Your task to perform on an android device: toggle notifications settings in the gmail app Image 0: 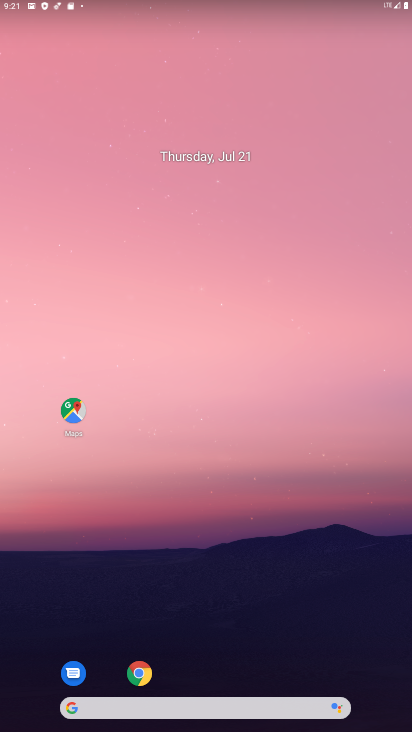
Step 0: drag from (199, 656) to (325, 364)
Your task to perform on an android device: toggle notifications settings in the gmail app Image 1: 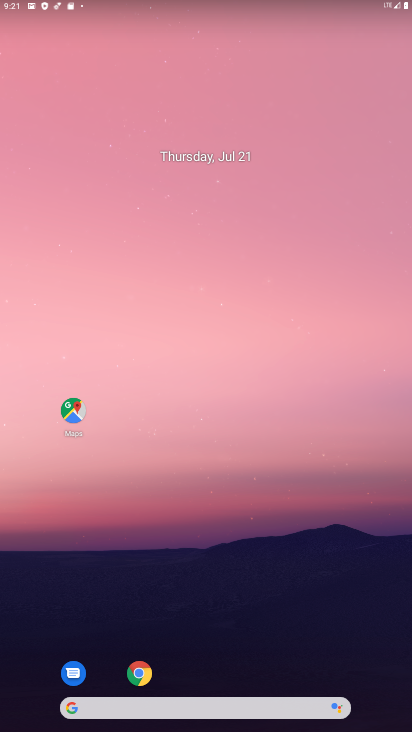
Step 1: drag from (182, 645) to (273, 101)
Your task to perform on an android device: toggle notifications settings in the gmail app Image 2: 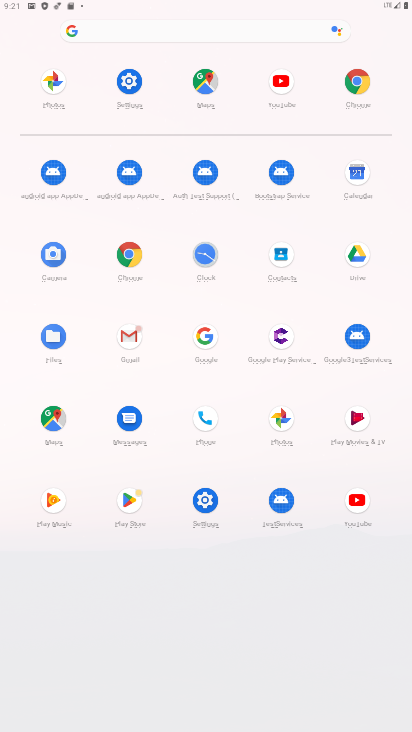
Step 2: click (129, 337)
Your task to perform on an android device: toggle notifications settings in the gmail app Image 3: 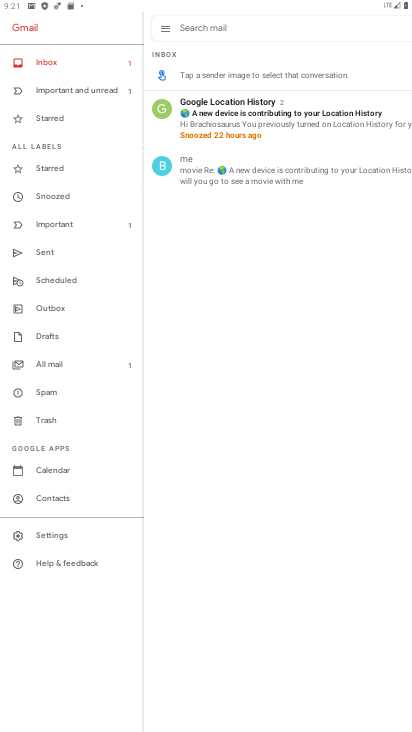
Step 3: click (160, 28)
Your task to perform on an android device: toggle notifications settings in the gmail app Image 4: 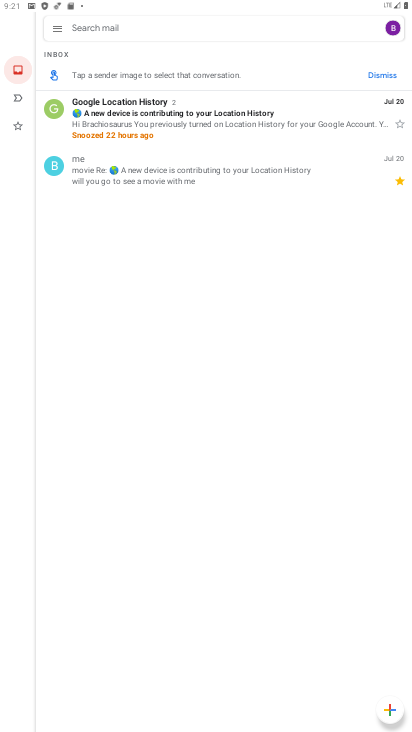
Step 4: click (56, 25)
Your task to perform on an android device: toggle notifications settings in the gmail app Image 5: 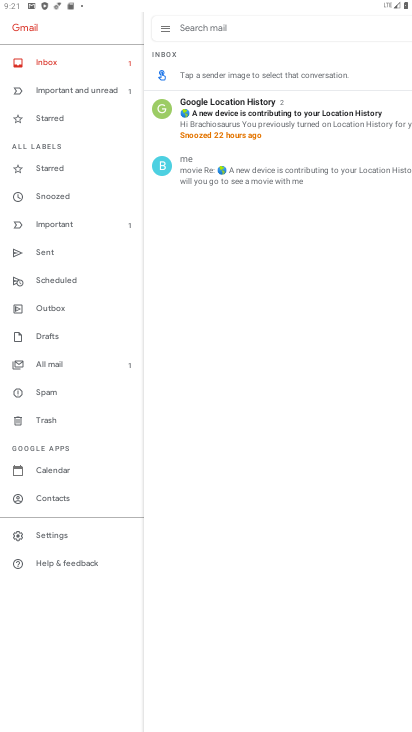
Step 5: click (69, 529)
Your task to perform on an android device: toggle notifications settings in the gmail app Image 6: 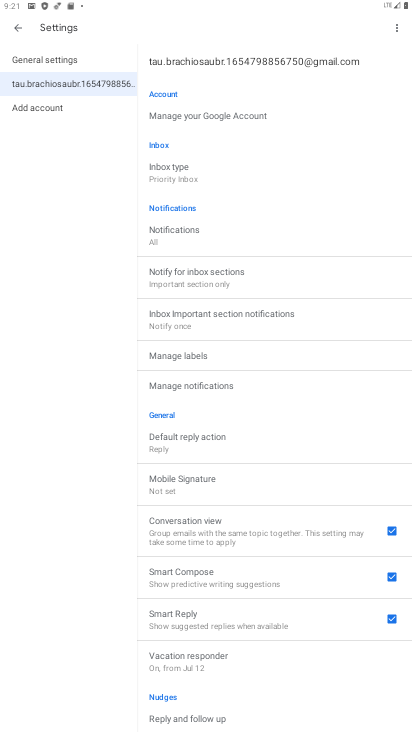
Step 6: drag from (227, 630) to (199, 199)
Your task to perform on an android device: toggle notifications settings in the gmail app Image 7: 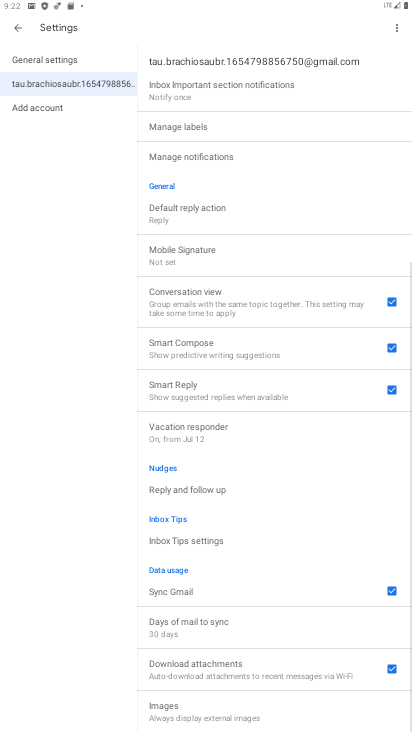
Step 7: click (243, 156)
Your task to perform on an android device: toggle notifications settings in the gmail app Image 8: 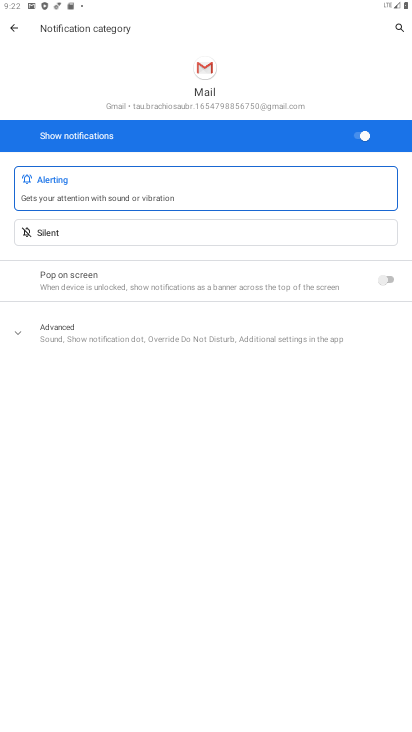
Step 8: click (360, 137)
Your task to perform on an android device: toggle notifications settings in the gmail app Image 9: 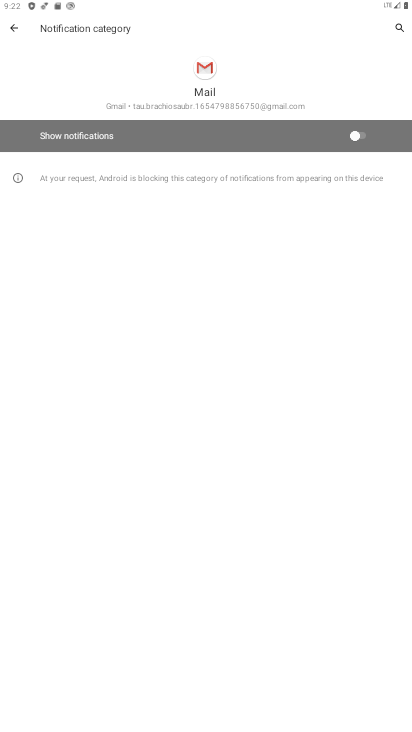
Step 9: task complete